Your task to perform on an android device: Go to wifi settings Image 0: 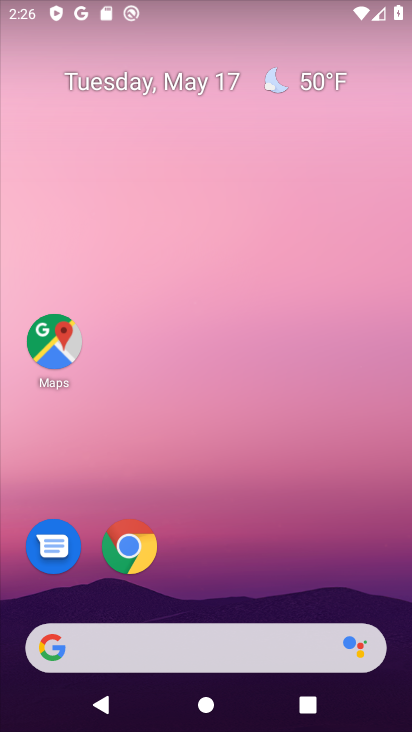
Step 0: click (301, 8)
Your task to perform on an android device: Go to wifi settings Image 1: 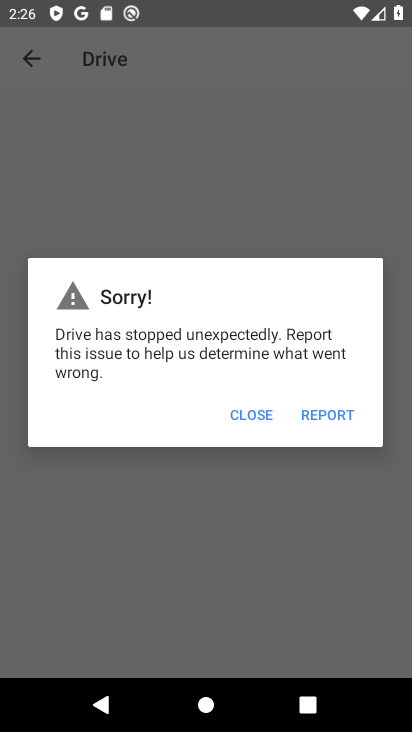
Step 1: press home button
Your task to perform on an android device: Go to wifi settings Image 2: 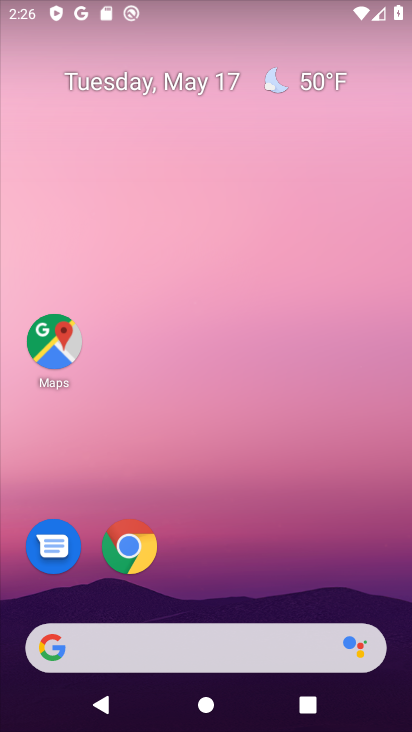
Step 2: drag from (180, 609) to (175, 26)
Your task to perform on an android device: Go to wifi settings Image 3: 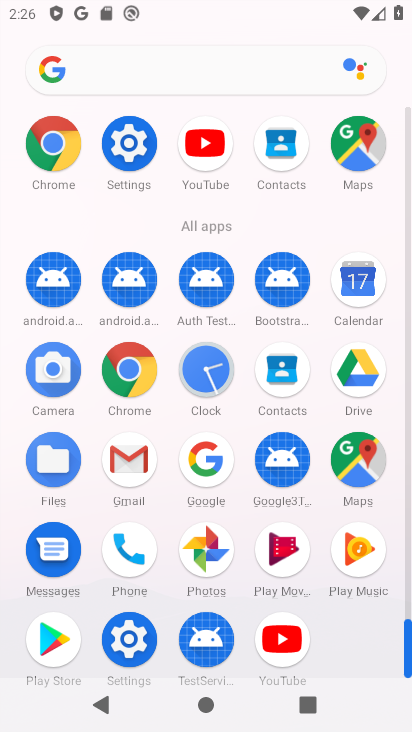
Step 3: click (127, 157)
Your task to perform on an android device: Go to wifi settings Image 4: 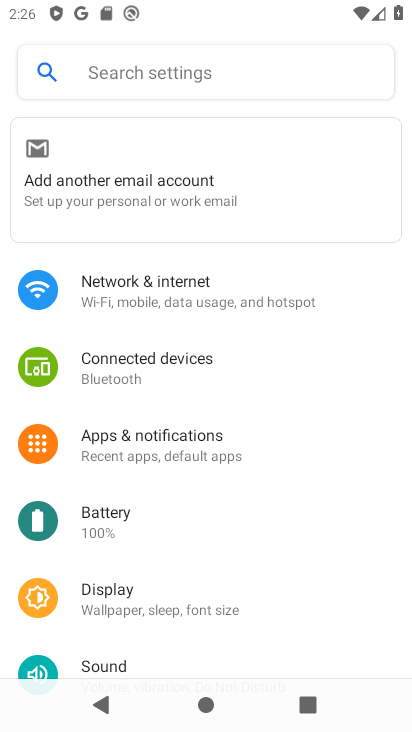
Step 4: click (189, 293)
Your task to perform on an android device: Go to wifi settings Image 5: 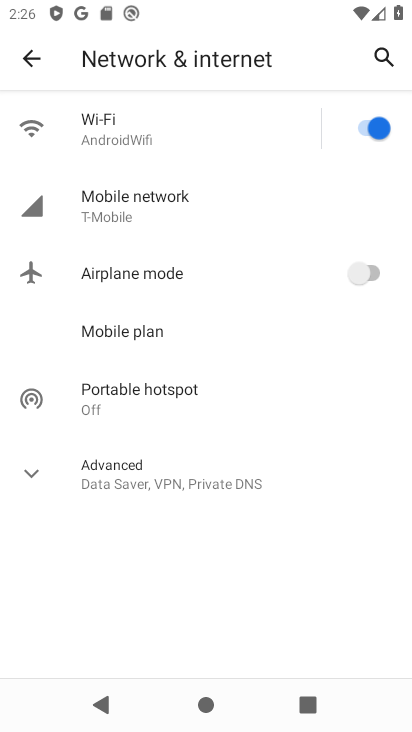
Step 5: click (201, 136)
Your task to perform on an android device: Go to wifi settings Image 6: 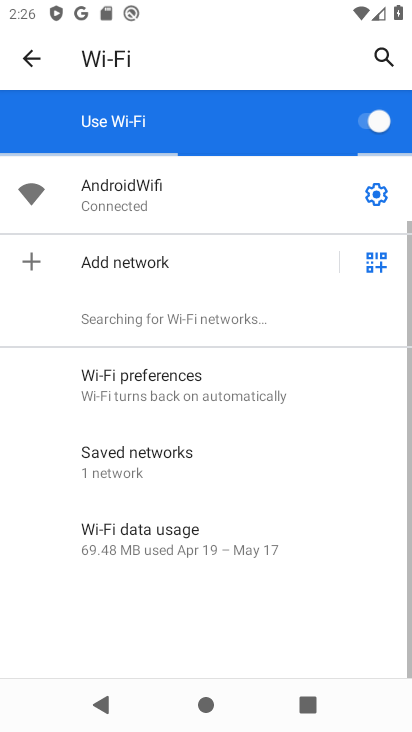
Step 6: task complete